Your task to perform on an android device: Go to wifi settings Image 0: 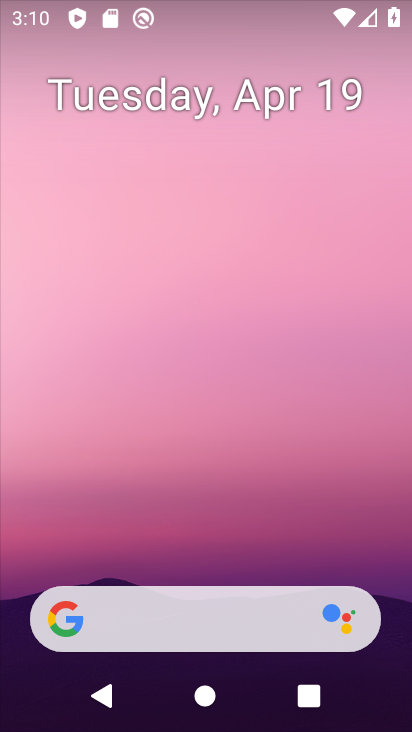
Step 0: drag from (175, 556) to (196, 50)
Your task to perform on an android device: Go to wifi settings Image 1: 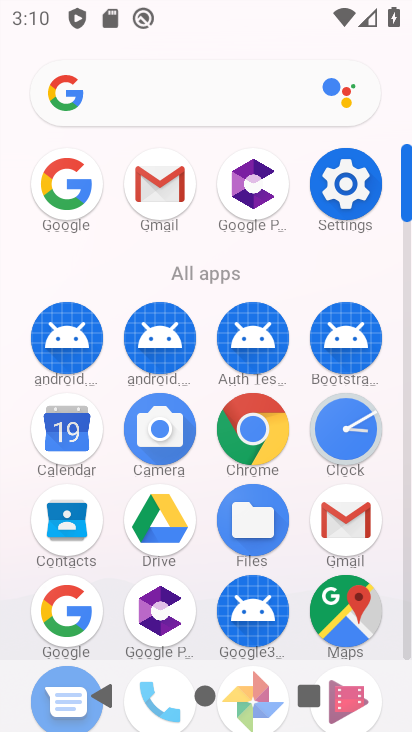
Step 1: click (350, 184)
Your task to perform on an android device: Go to wifi settings Image 2: 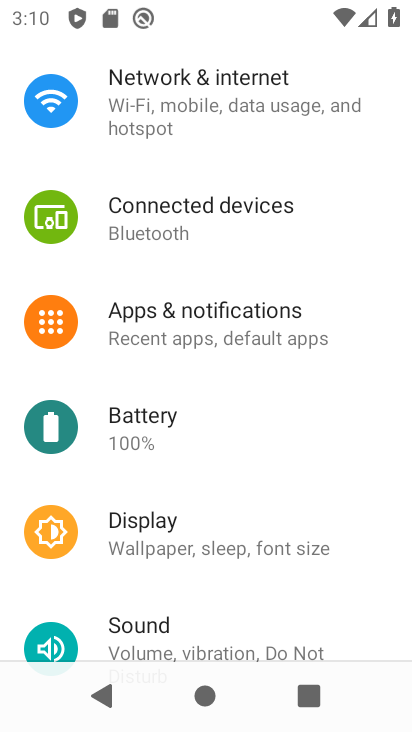
Step 2: drag from (212, 503) to (223, 338)
Your task to perform on an android device: Go to wifi settings Image 3: 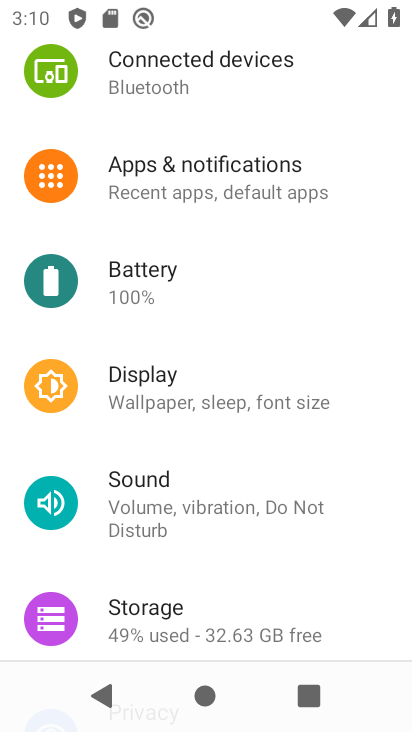
Step 3: drag from (223, 338) to (265, 462)
Your task to perform on an android device: Go to wifi settings Image 4: 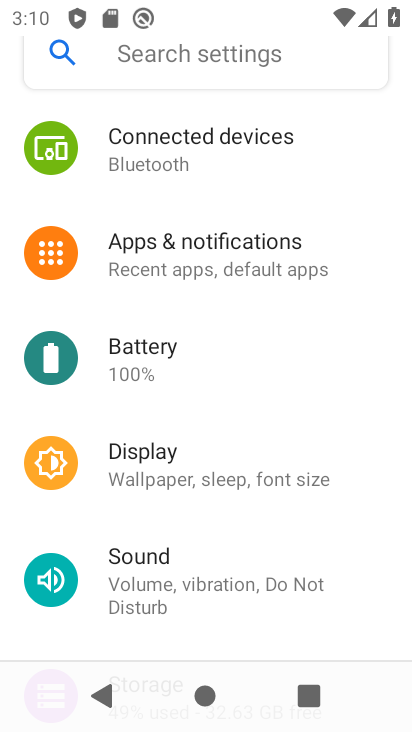
Step 4: drag from (246, 323) to (276, 448)
Your task to perform on an android device: Go to wifi settings Image 5: 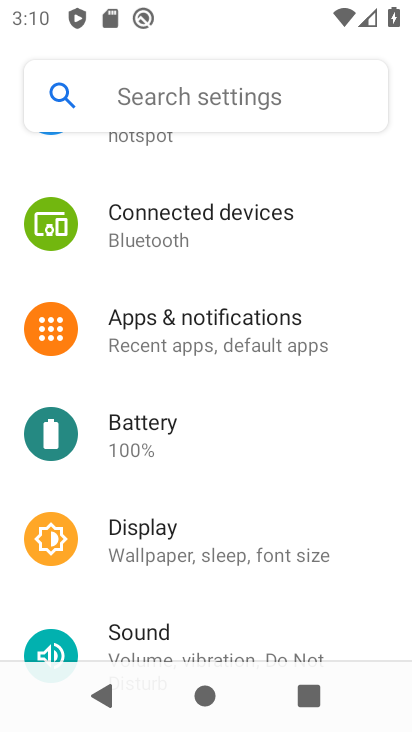
Step 5: drag from (269, 279) to (282, 391)
Your task to perform on an android device: Go to wifi settings Image 6: 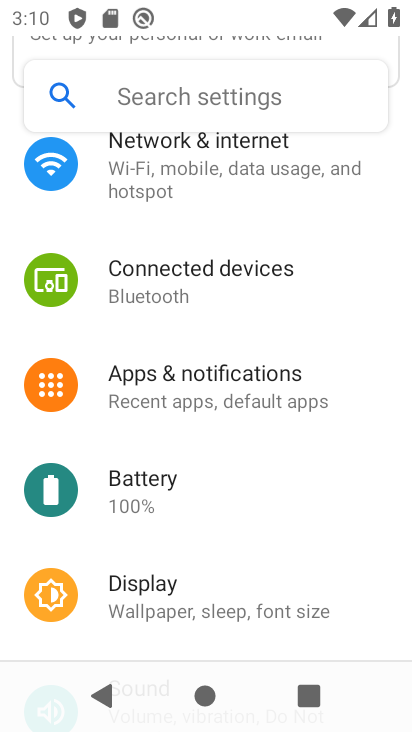
Step 6: drag from (240, 241) to (273, 396)
Your task to perform on an android device: Go to wifi settings Image 7: 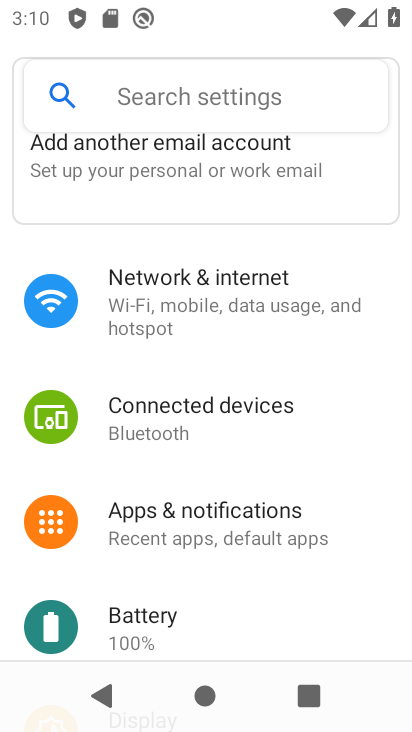
Step 7: click (213, 272)
Your task to perform on an android device: Go to wifi settings Image 8: 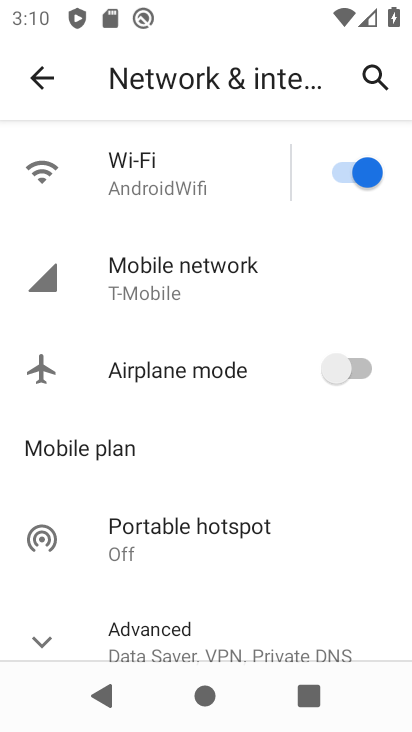
Step 8: click (128, 157)
Your task to perform on an android device: Go to wifi settings Image 9: 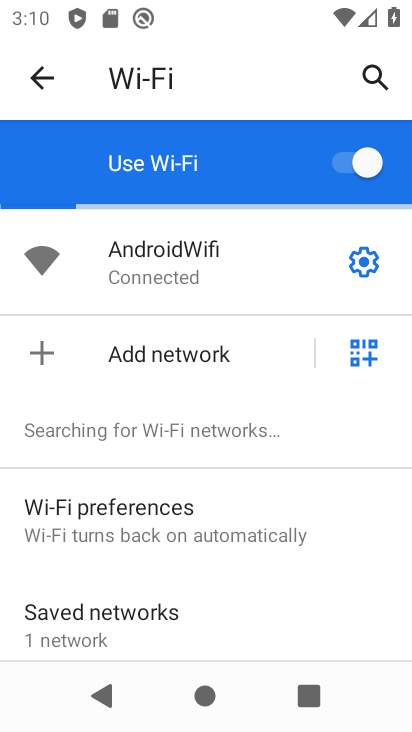
Step 9: task complete